Your task to perform on an android device: toggle show notifications on the lock screen Image 0: 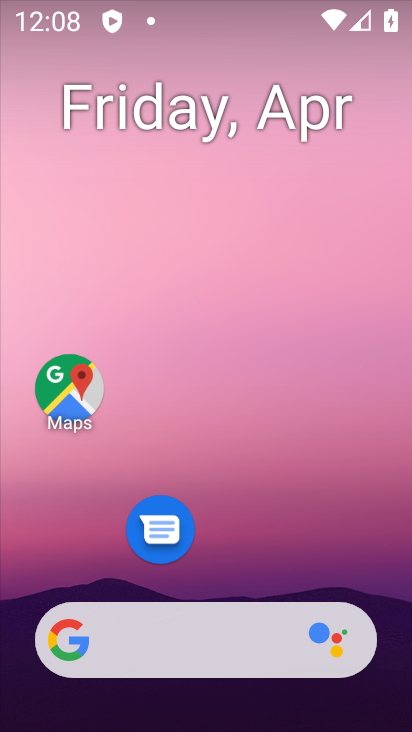
Step 0: click (228, 295)
Your task to perform on an android device: toggle show notifications on the lock screen Image 1: 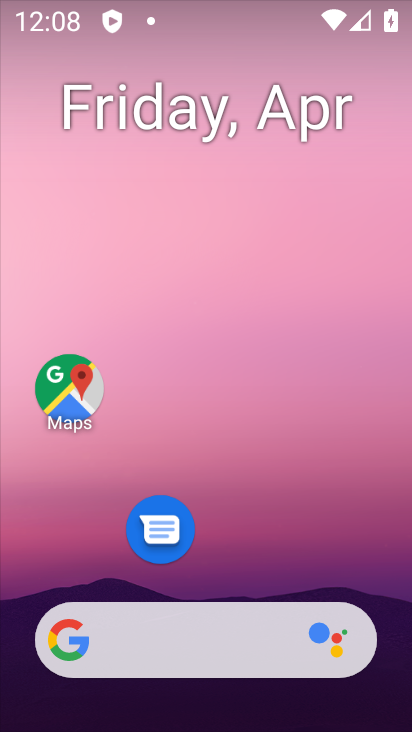
Step 1: drag from (216, 559) to (298, 1)
Your task to perform on an android device: toggle show notifications on the lock screen Image 2: 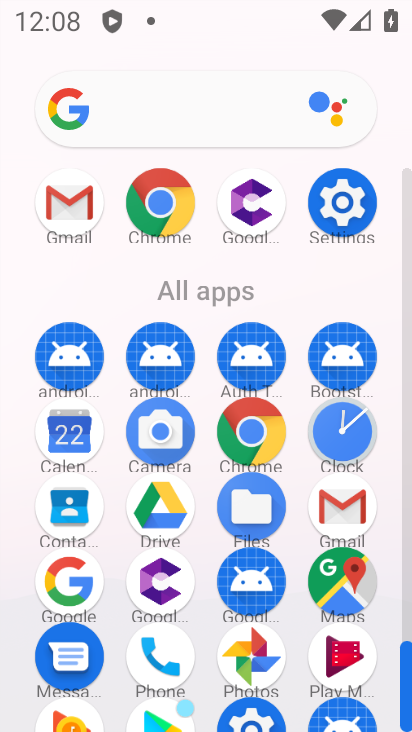
Step 2: click (353, 226)
Your task to perform on an android device: toggle show notifications on the lock screen Image 3: 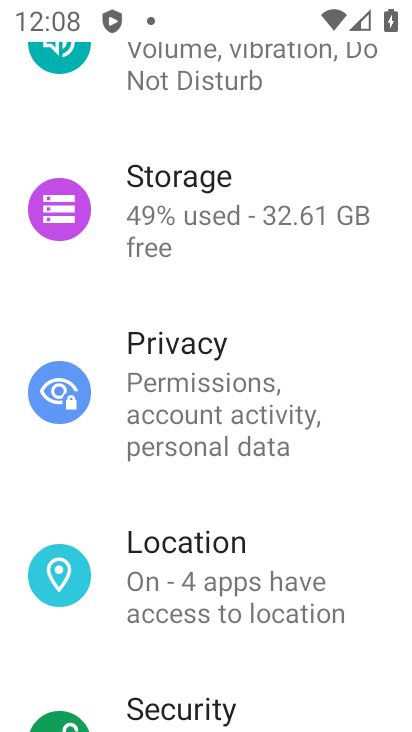
Step 3: drag from (210, 238) to (181, 515)
Your task to perform on an android device: toggle show notifications on the lock screen Image 4: 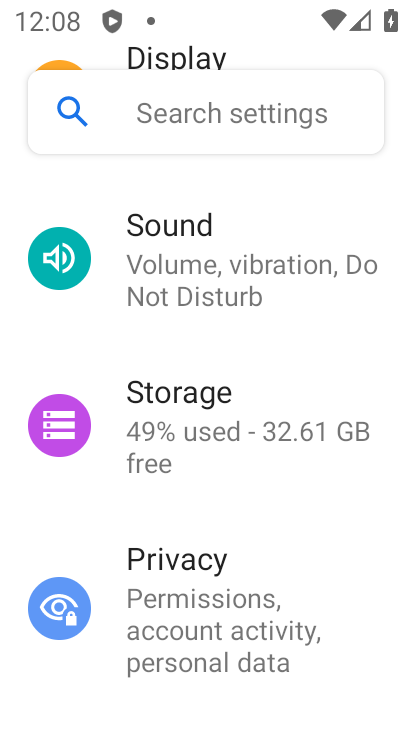
Step 4: drag from (225, 225) to (173, 693)
Your task to perform on an android device: toggle show notifications on the lock screen Image 5: 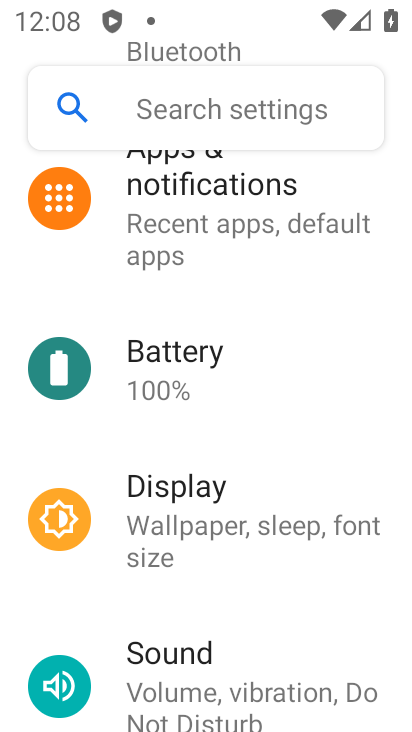
Step 5: drag from (249, 242) to (210, 439)
Your task to perform on an android device: toggle show notifications on the lock screen Image 6: 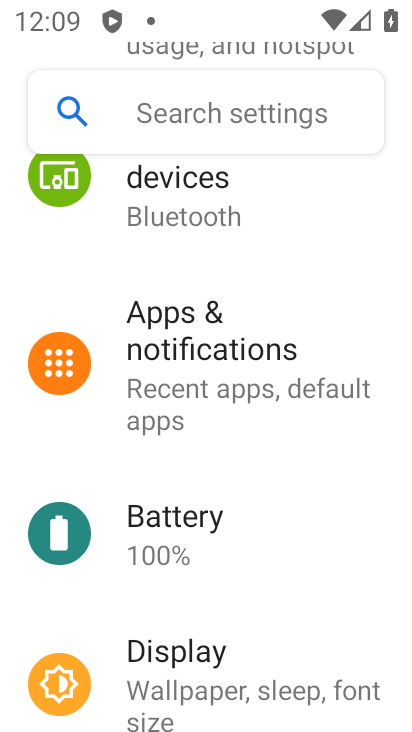
Step 6: click (202, 384)
Your task to perform on an android device: toggle show notifications on the lock screen Image 7: 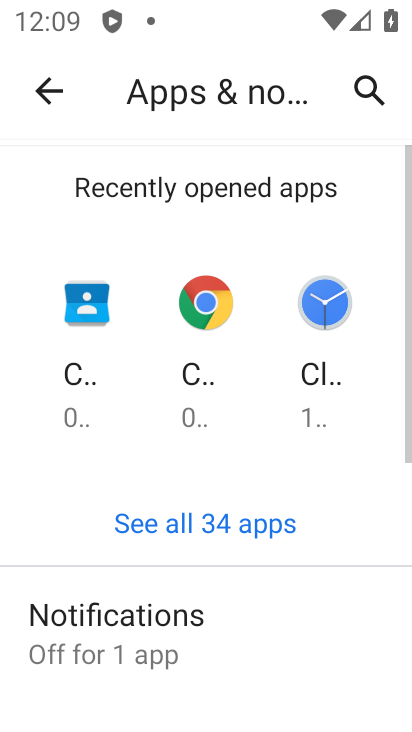
Step 7: click (165, 587)
Your task to perform on an android device: toggle show notifications on the lock screen Image 8: 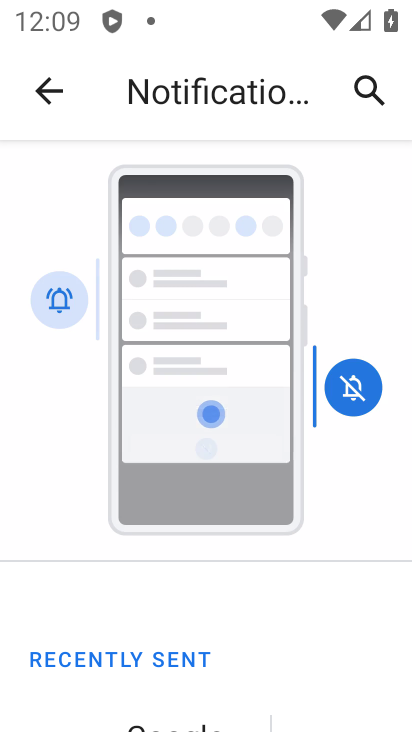
Step 8: drag from (161, 584) to (283, 111)
Your task to perform on an android device: toggle show notifications on the lock screen Image 9: 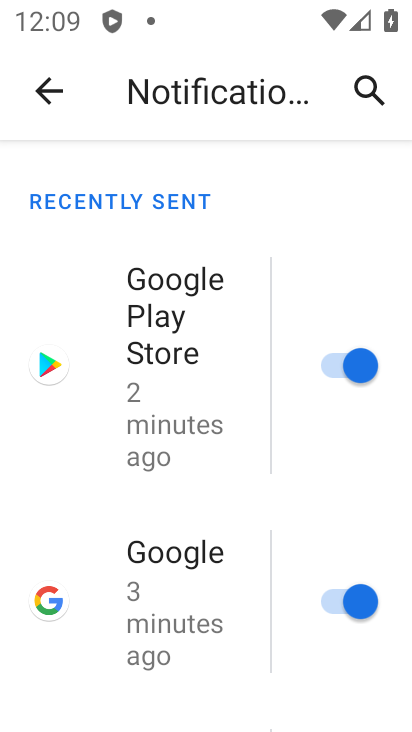
Step 9: drag from (156, 602) to (225, 169)
Your task to perform on an android device: toggle show notifications on the lock screen Image 10: 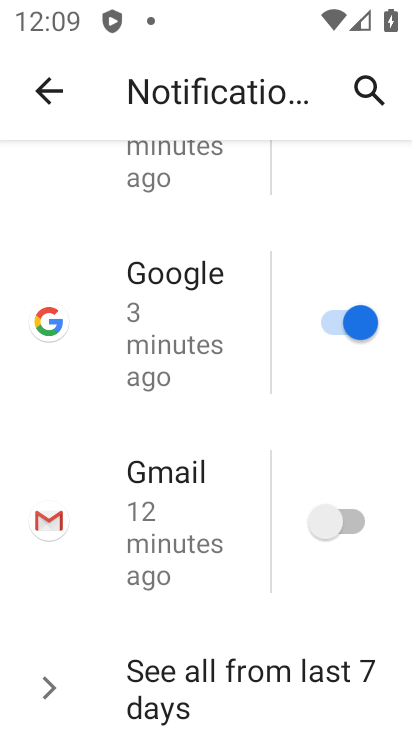
Step 10: drag from (159, 605) to (243, 255)
Your task to perform on an android device: toggle show notifications on the lock screen Image 11: 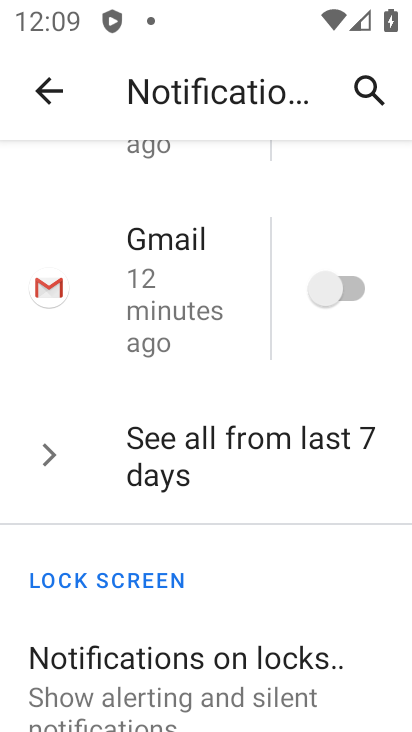
Step 11: click (125, 675)
Your task to perform on an android device: toggle show notifications on the lock screen Image 12: 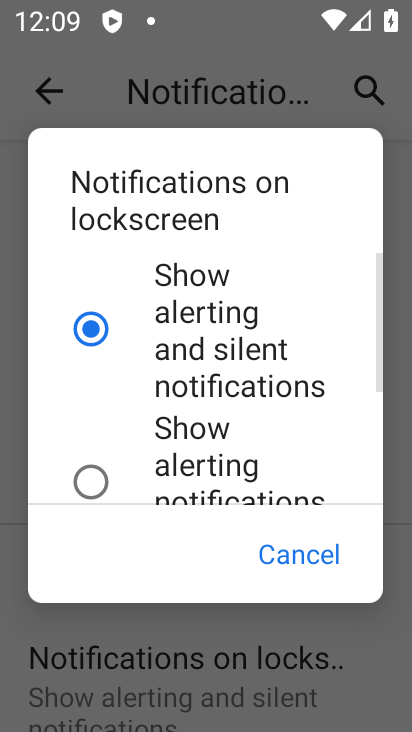
Step 12: drag from (132, 455) to (192, 255)
Your task to perform on an android device: toggle show notifications on the lock screen Image 13: 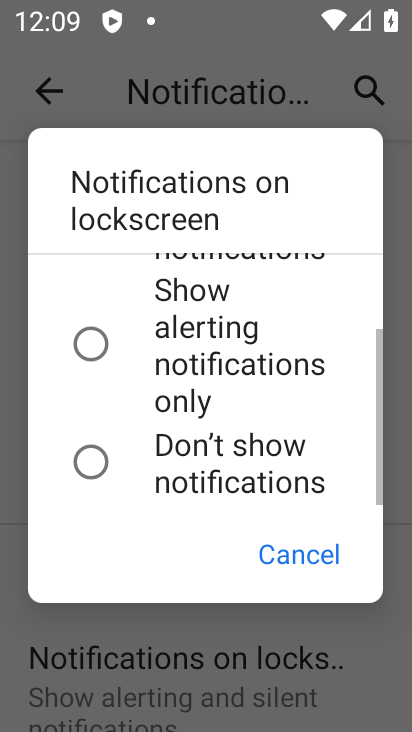
Step 13: click (94, 464)
Your task to perform on an android device: toggle show notifications on the lock screen Image 14: 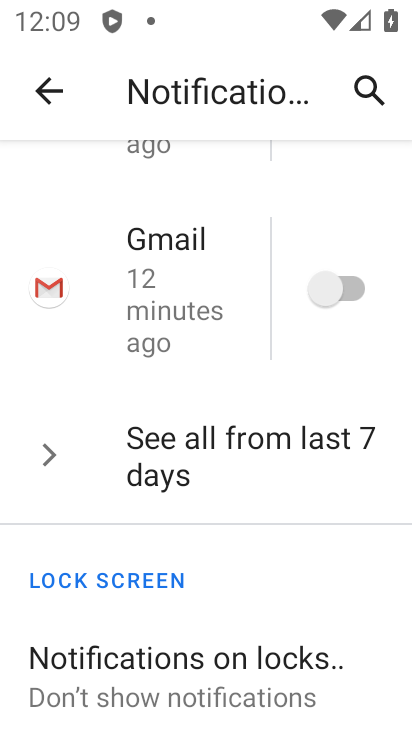
Step 14: task complete